Your task to perform on an android device: clear all cookies in the chrome app Image 0: 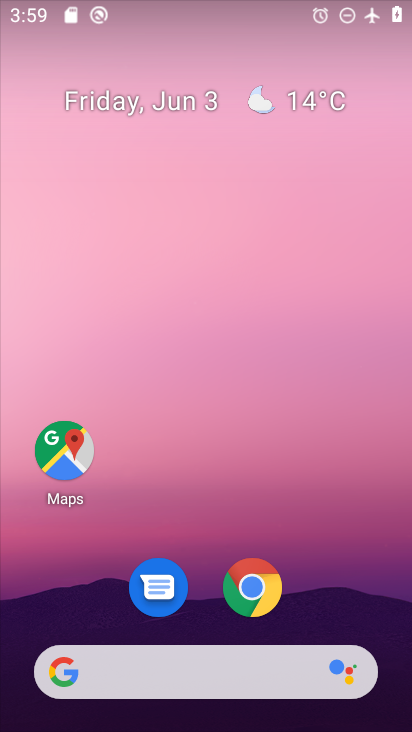
Step 0: click (258, 589)
Your task to perform on an android device: clear all cookies in the chrome app Image 1: 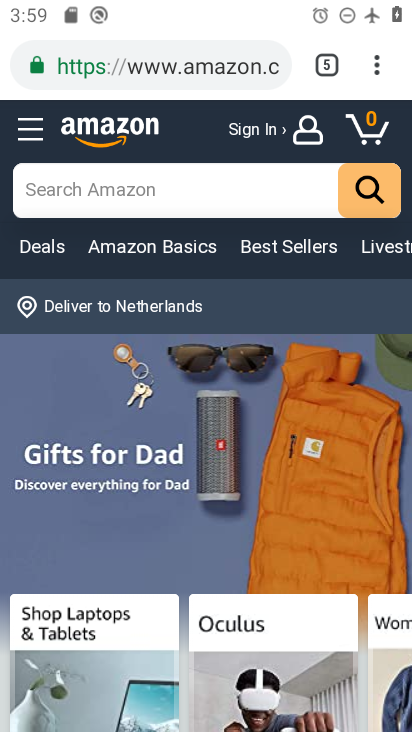
Step 1: click (379, 71)
Your task to perform on an android device: clear all cookies in the chrome app Image 2: 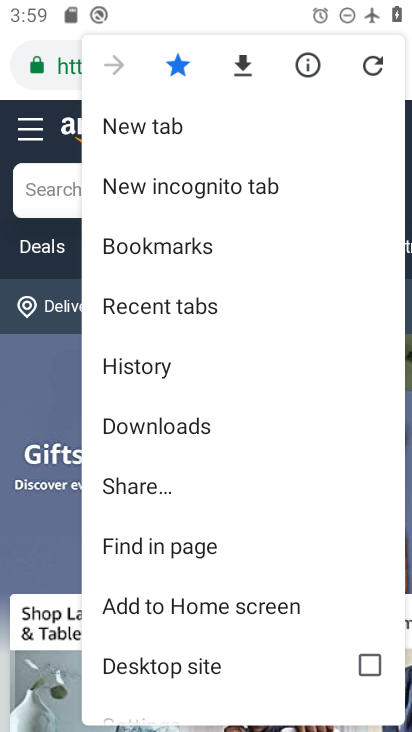
Step 2: click (148, 364)
Your task to perform on an android device: clear all cookies in the chrome app Image 3: 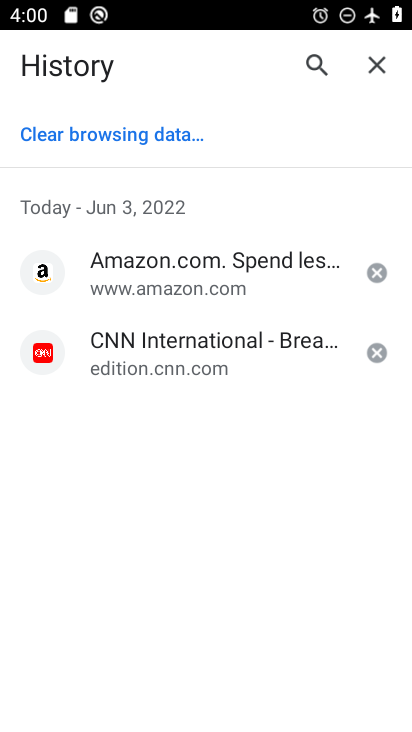
Step 3: click (70, 133)
Your task to perform on an android device: clear all cookies in the chrome app Image 4: 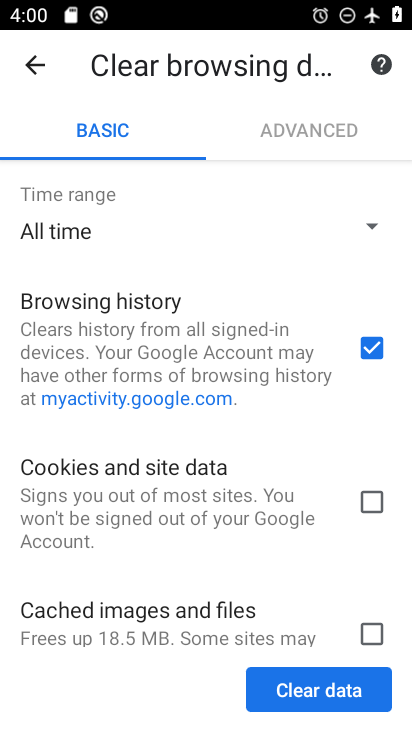
Step 4: click (371, 501)
Your task to perform on an android device: clear all cookies in the chrome app Image 5: 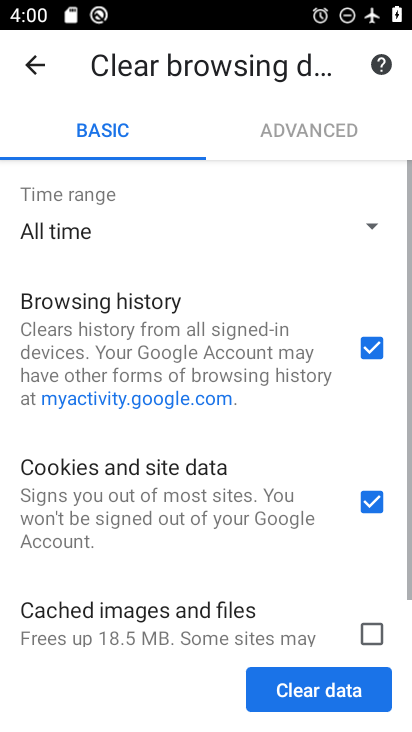
Step 5: click (371, 345)
Your task to perform on an android device: clear all cookies in the chrome app Image 6: 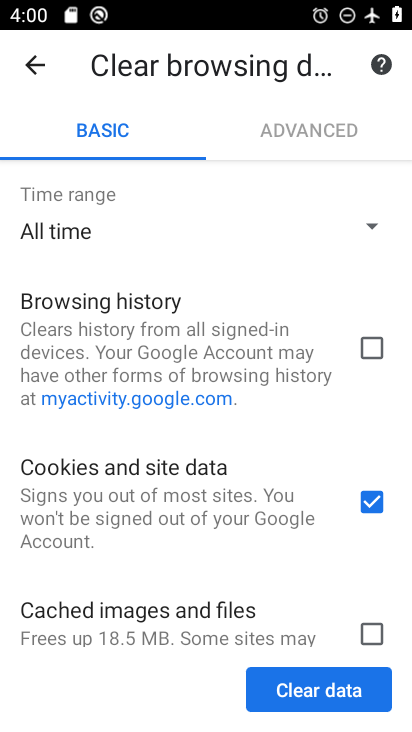
Step 6: click (312, 685)
Your task to perform on an android device: clear all cookies in the chrome app Image 7: 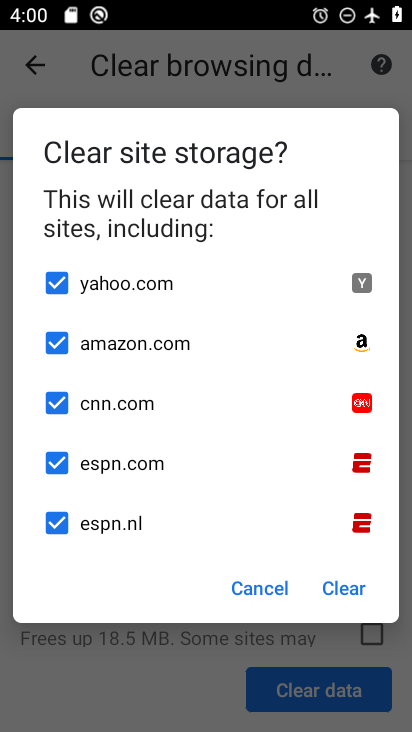
Step 7: click (353, 586)
Your task to perform on an android device: clear all cookies in the chrome app Image 8: 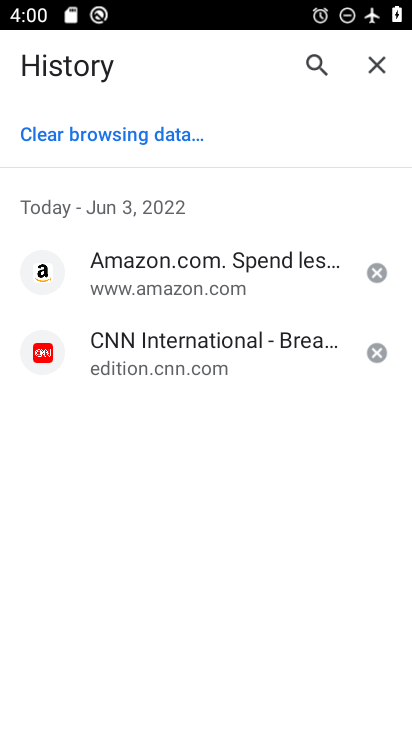
Step 8: task complete